Your task to perform on an android device: open app "WhatsApp Messenger" (install if not already installed) and enter user name: "cartons@outlook.com" and password: "approximated" Image 0: 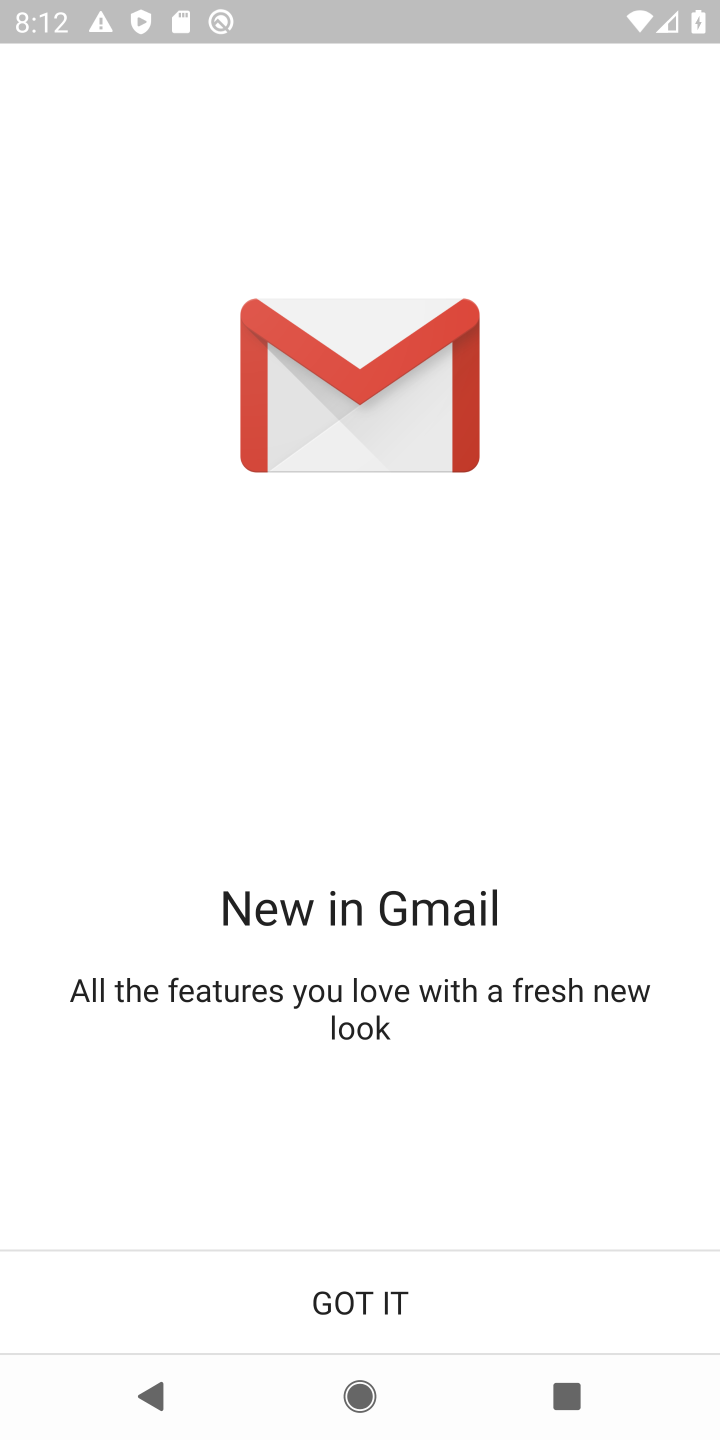
Step 0: click (68, 91)
Your task to perform on an android device: open app "WhatsApp Messenger" (install if not already installed) and enter user name: "cartons@outlook.com" and password: "approximated" Image 1: 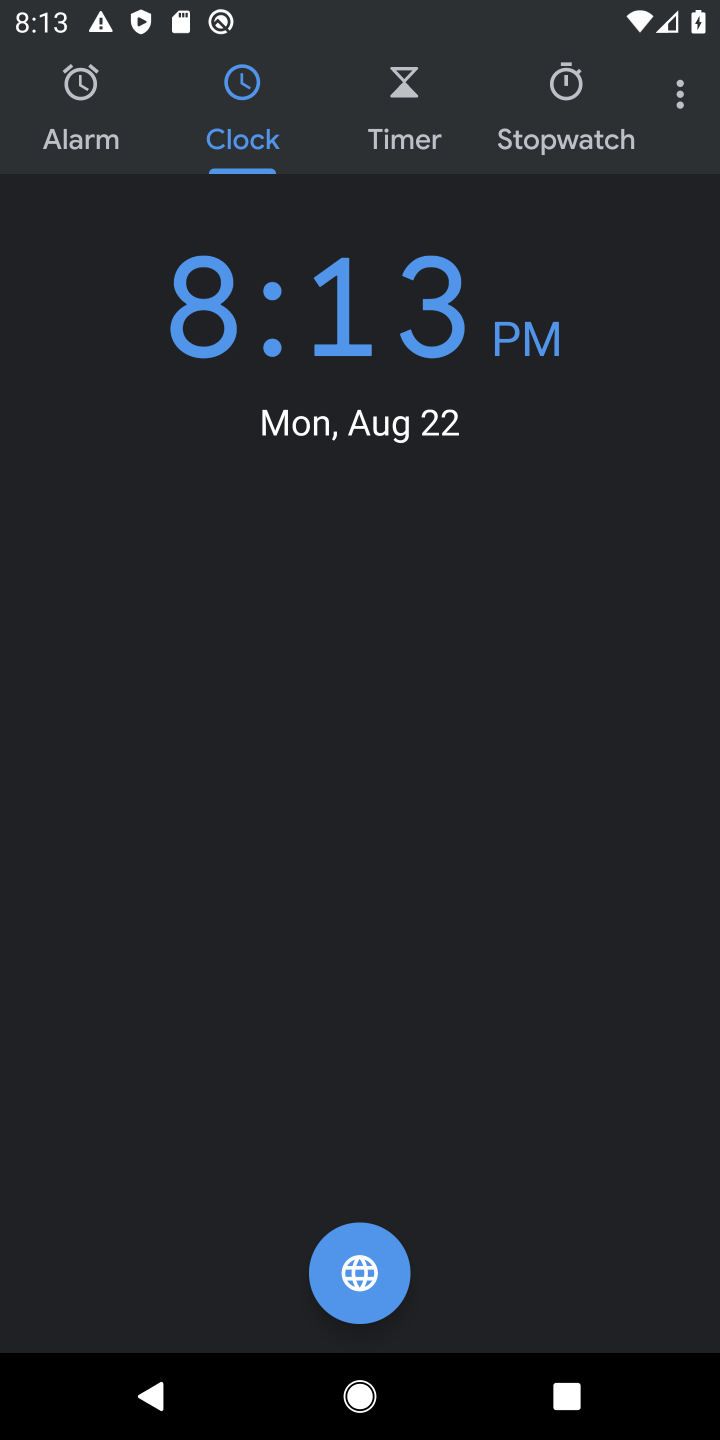
Step 1: press home button
Your task to perform on an android device: open app "WhatsApp Messenger" (install if not already installed) and enter user name: "cartons@outlook.com" and password: "approximated" Image 2: 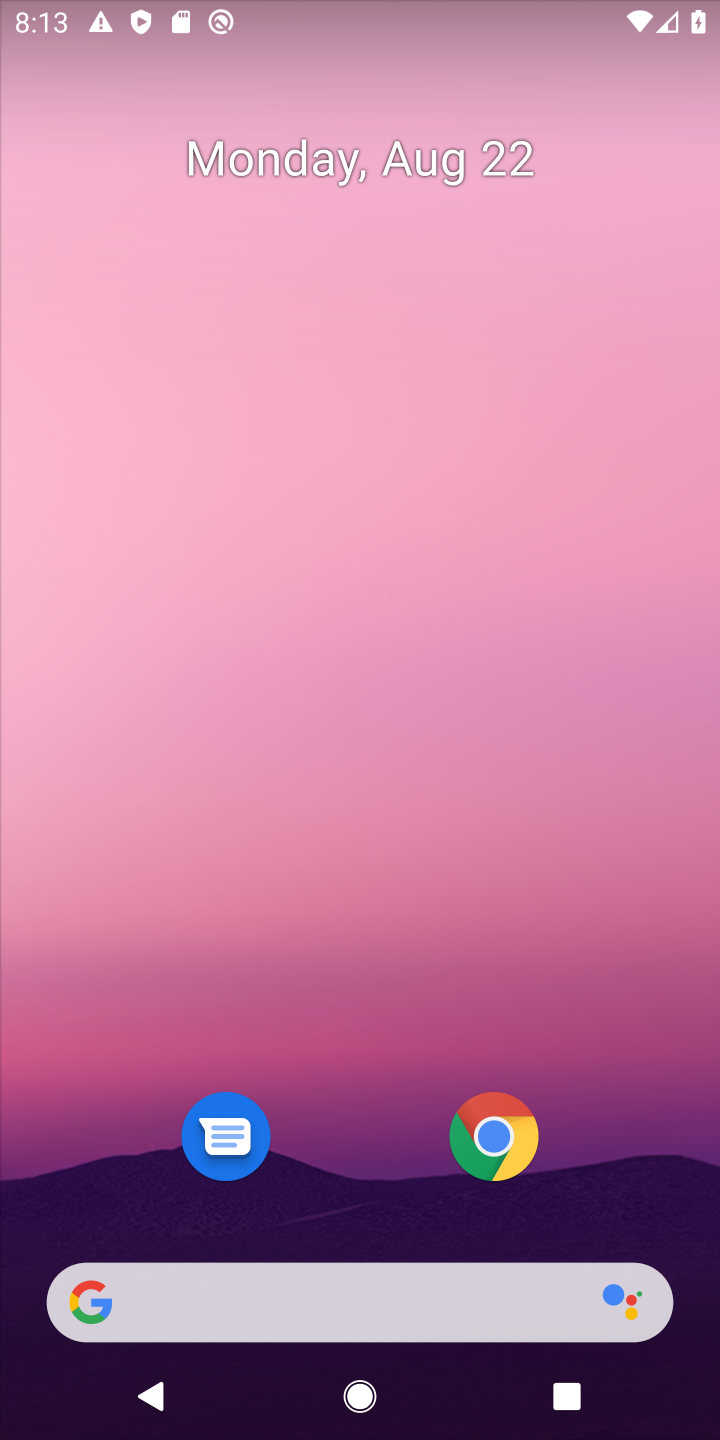
Step 2: drag from (368, 705) to (346, 276)
Your task to perform on an android device: open app "WhatsApp Messenger" (install if not already installed) and enter user name: "cartons@outlook.com" and password: "approximated" Image 3: 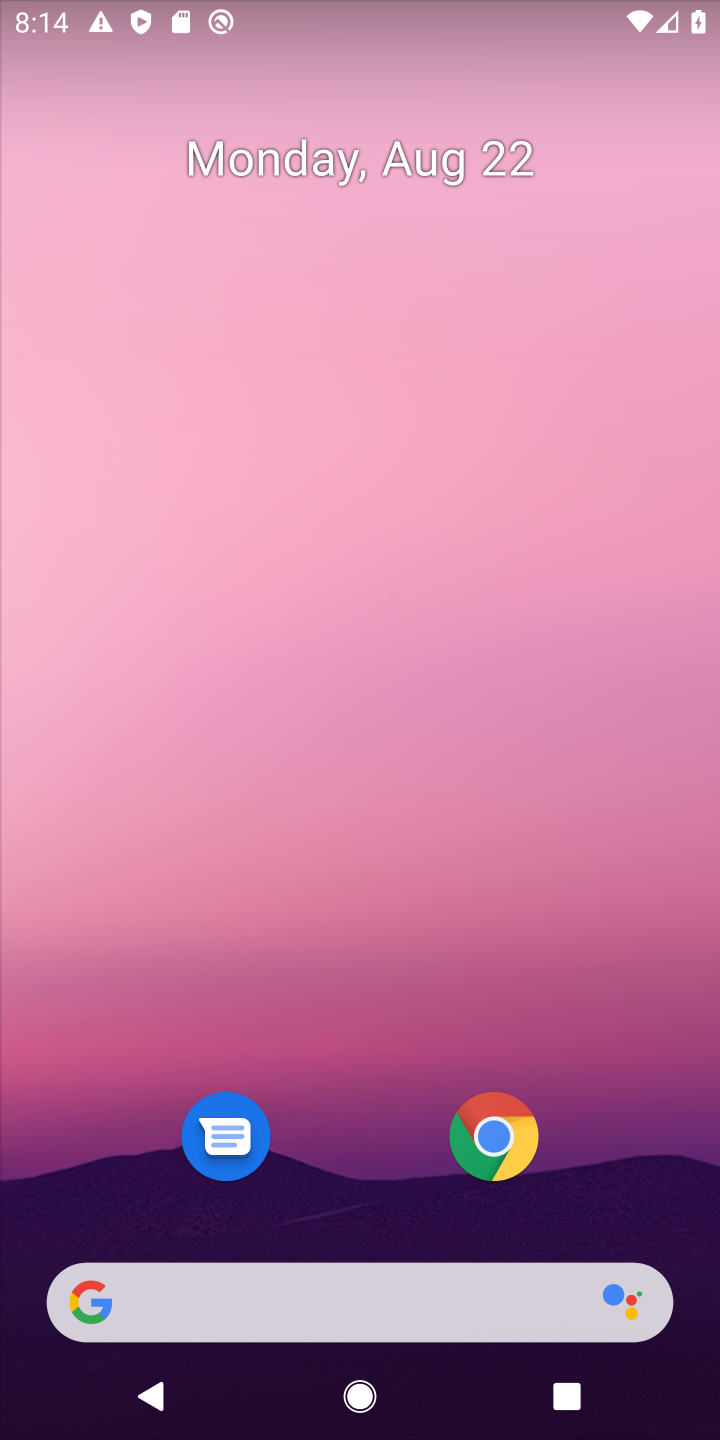
Step 3: drag from (332, 1192) to (386, 349)
Your task to perform on an android device: open app "WhatsApp Messenger" (install if not already installed) and enter user name: "cartons@outlook.com" and password: "approximated" Image 4: 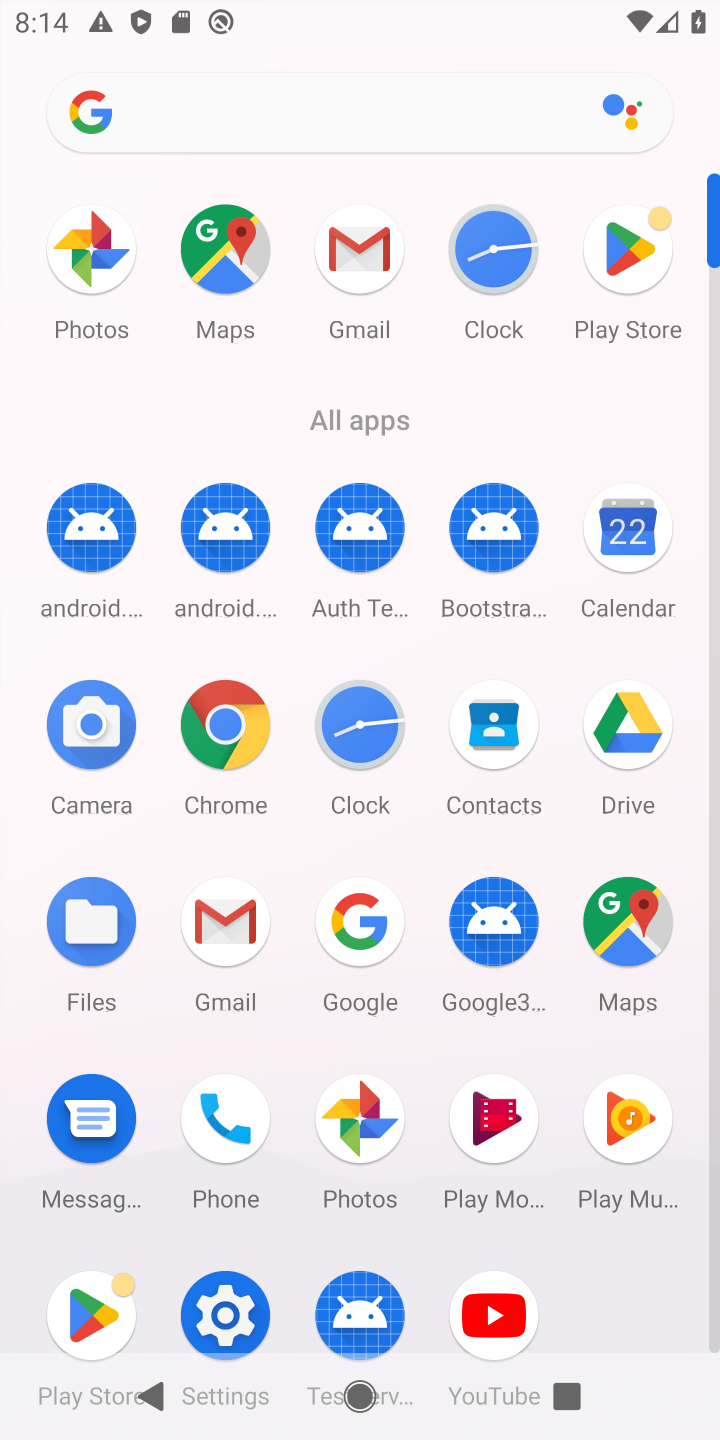
Step 4: click (637, 240)
Your task to perform on an android device: open app "WhatsApp Messenger" (install if not already installed) and enter user name: "cartons@outlook.com" and password: "approximated" Image 5: 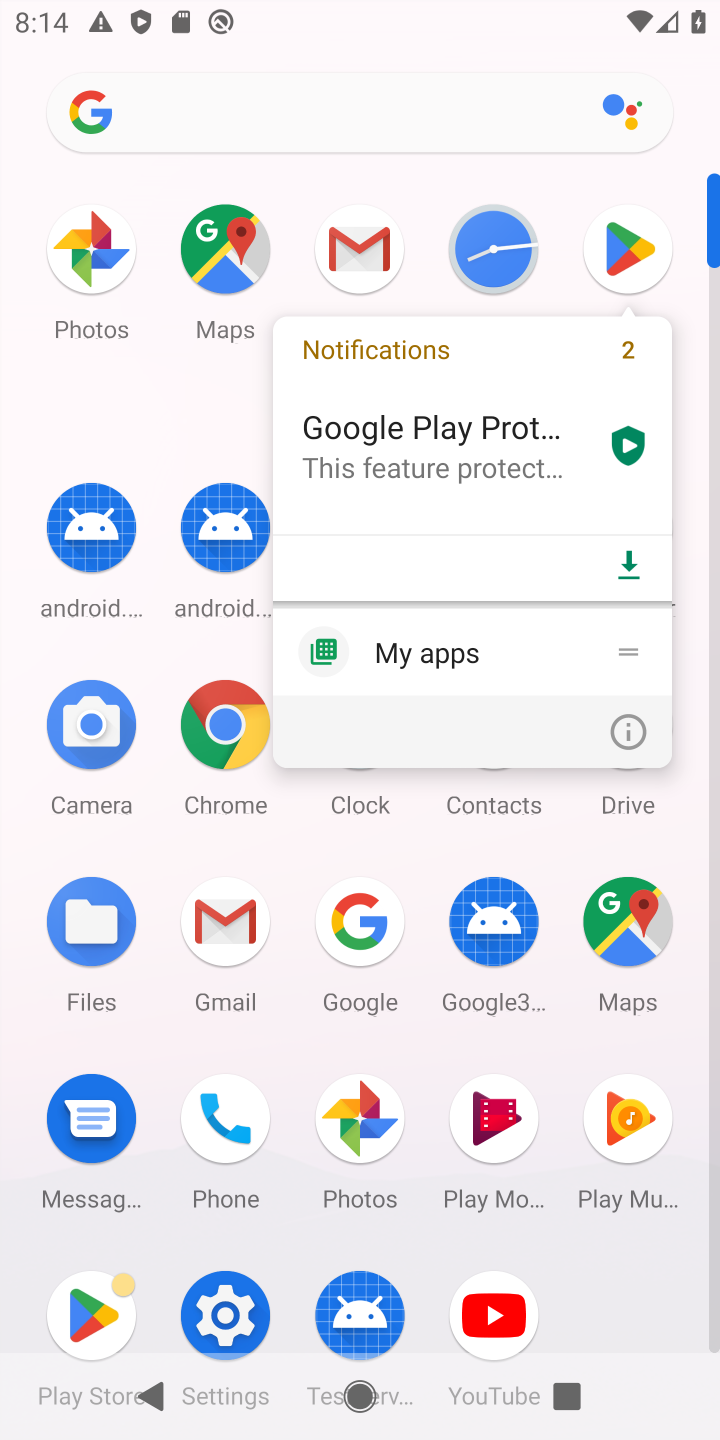
Step 5: click (647, 253)
Your task to perform on an android device: open app "WhatsApp Messenger" (install if not already installed) and enter user name: "cartons@outlook.com" and password: "approximated" Image 6: 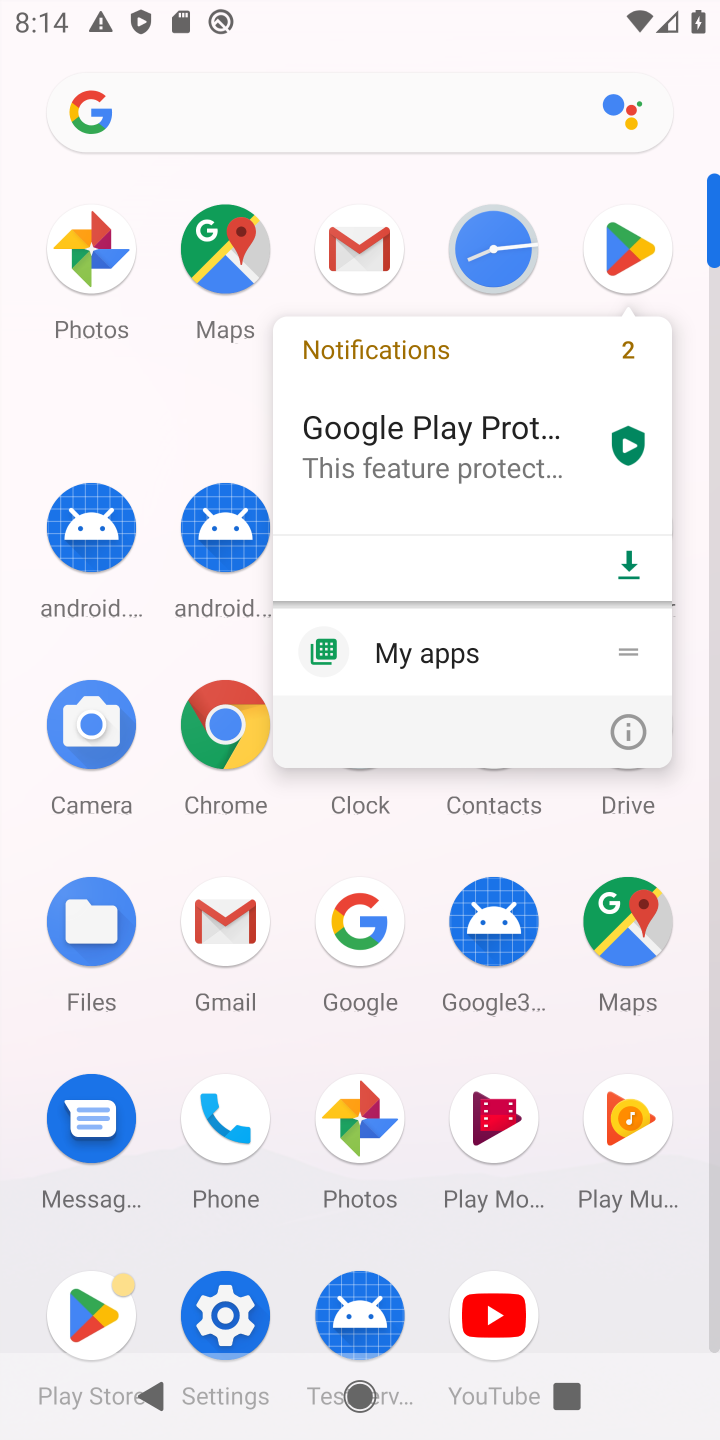
Step 6: click (605, 242)
Your task to perform on an android device: open app "WhatsApp Messenger" (install if not already installed) and enter user name: "cartons@outlook.com" and password: "approximated" Image 7: 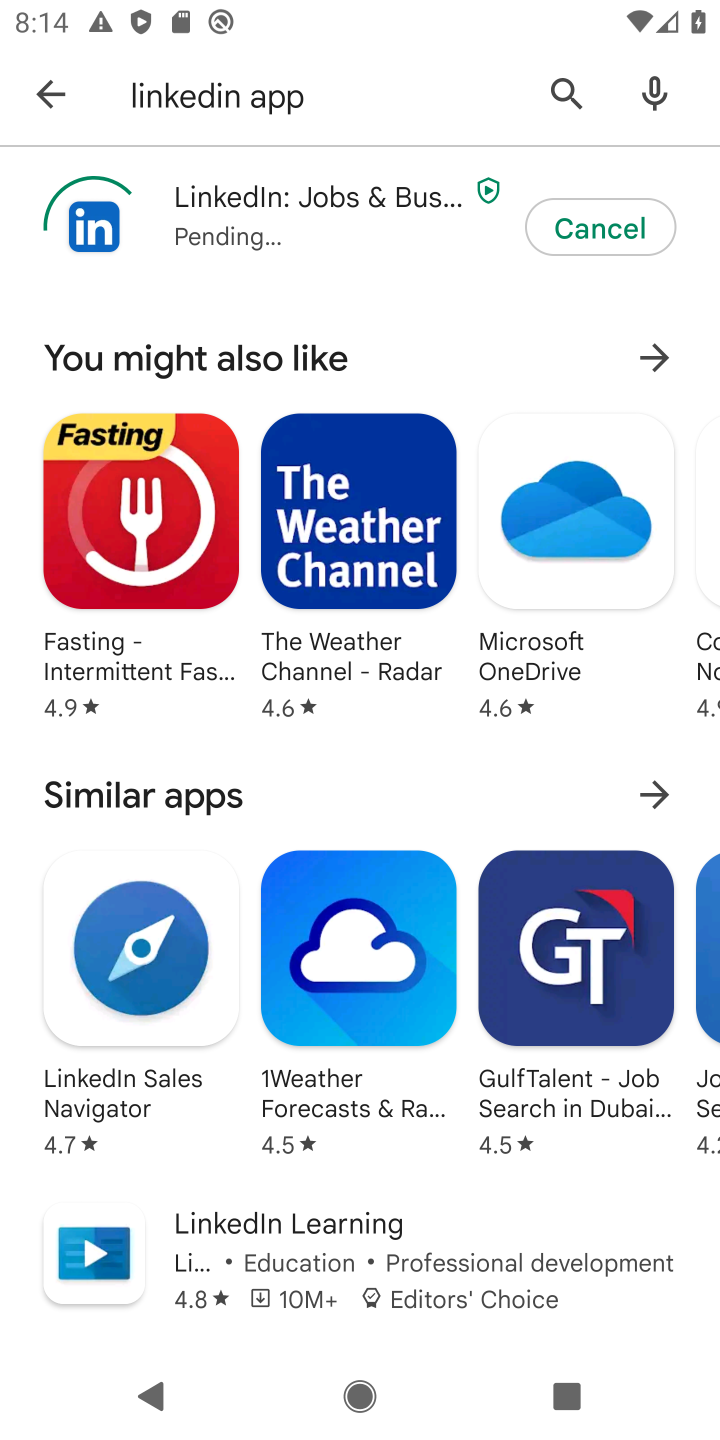
Step 7: click (52, 105)
Your task to perform on an android device: open app "WhatsApp Messenger" (install if not already installed) and enter user name: "cartons@outlook.com" and password: "approximated" Image 8: 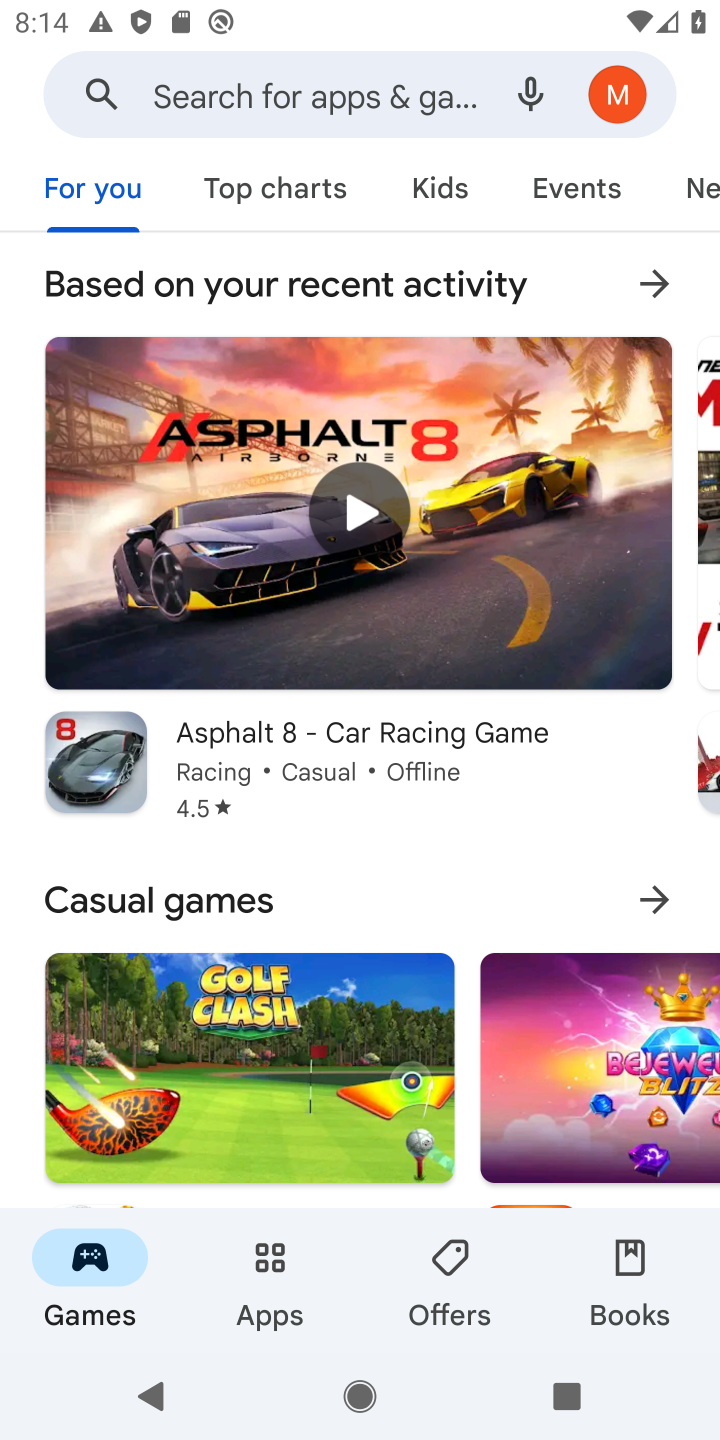
Step 8: click (306, 75)
Your task to perform on an android device: open app "WhatsApp Messenger" (install if not already installed) and enter user name: "cartons@outlook.com" and password: "approximated" Image 9: 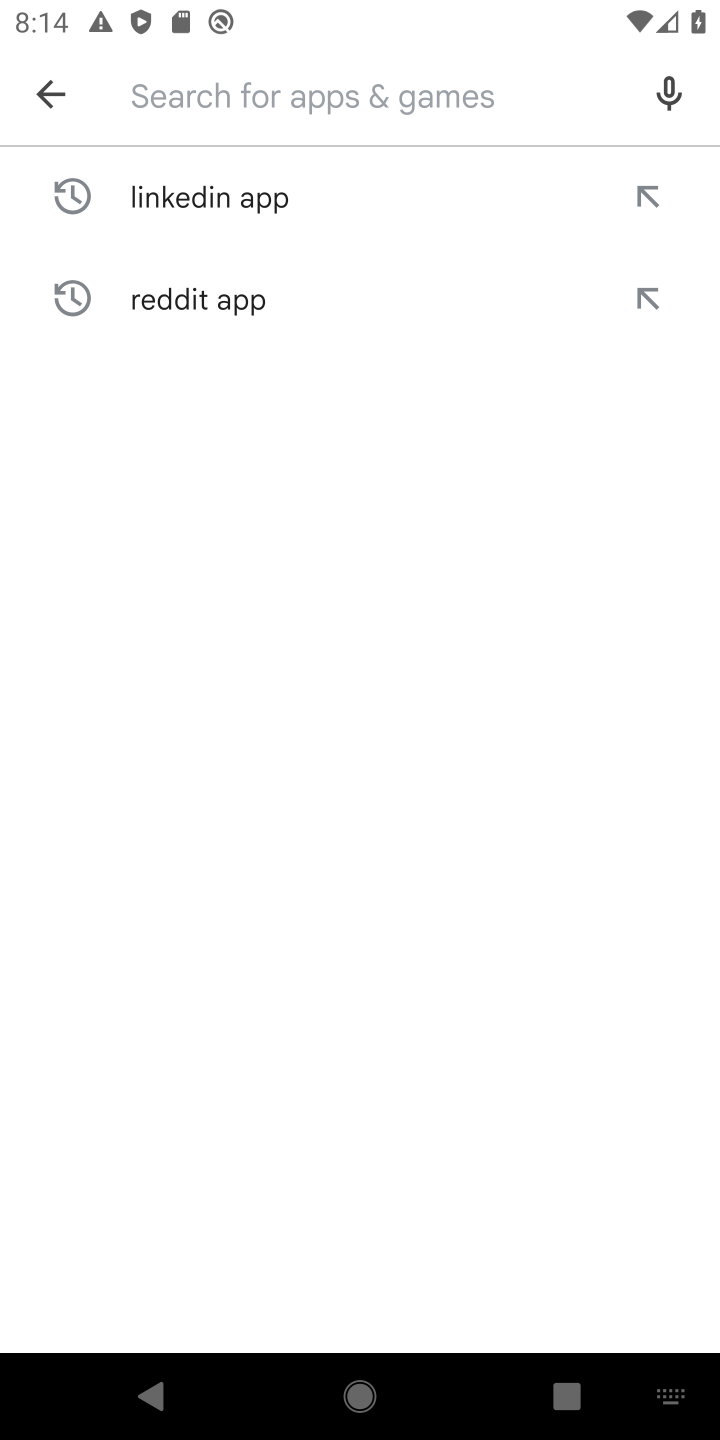
Step 9: type "WhatsApp Messenger "
Your task to perform on an android device: open app "WhatsApp Messenger" (install if not already installed) and enter user name: "cartons@outlook.com" and password: "approximated" Image 10: 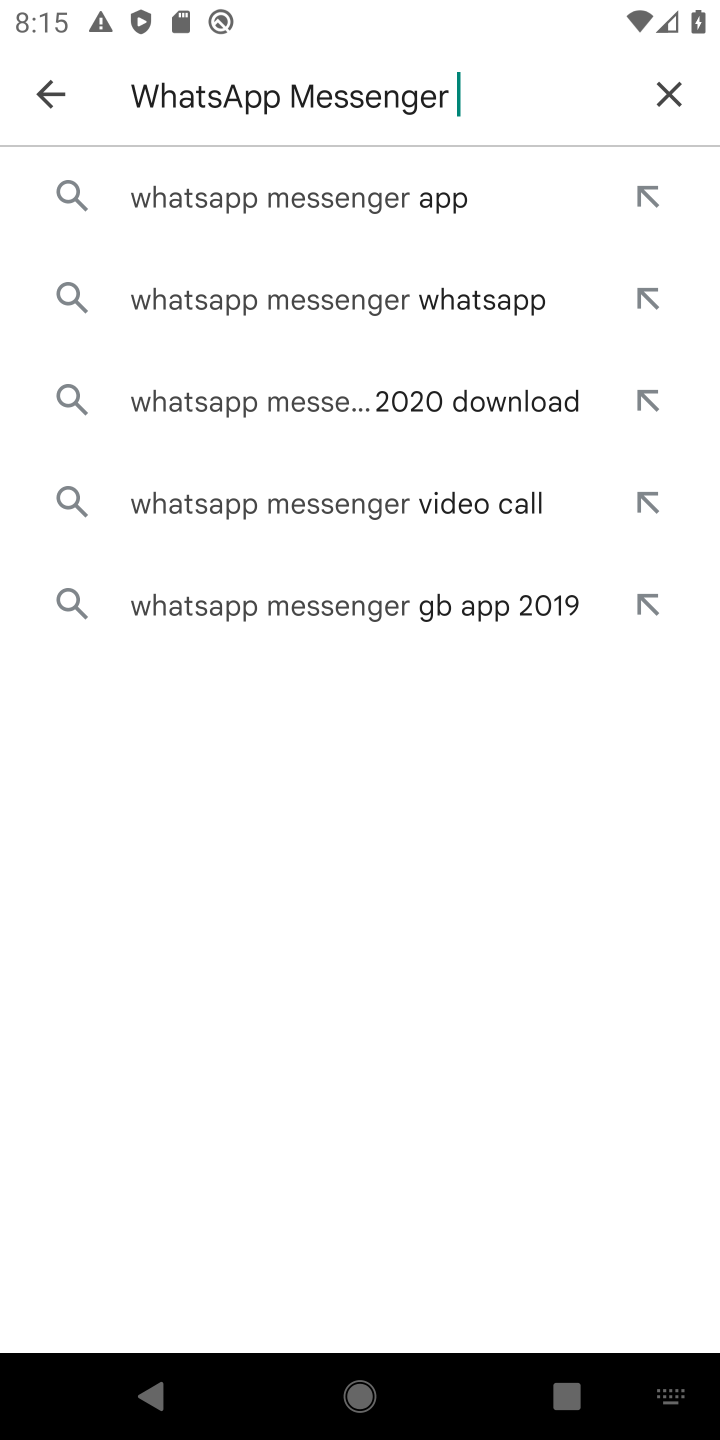
Step 10: click (258, 208)
Your task to perform on an android device: open app "WhatsApp Messenger" (install if not already installed) and enter user name: "cartons@outlook.com" and password: "approximated" Image 11: 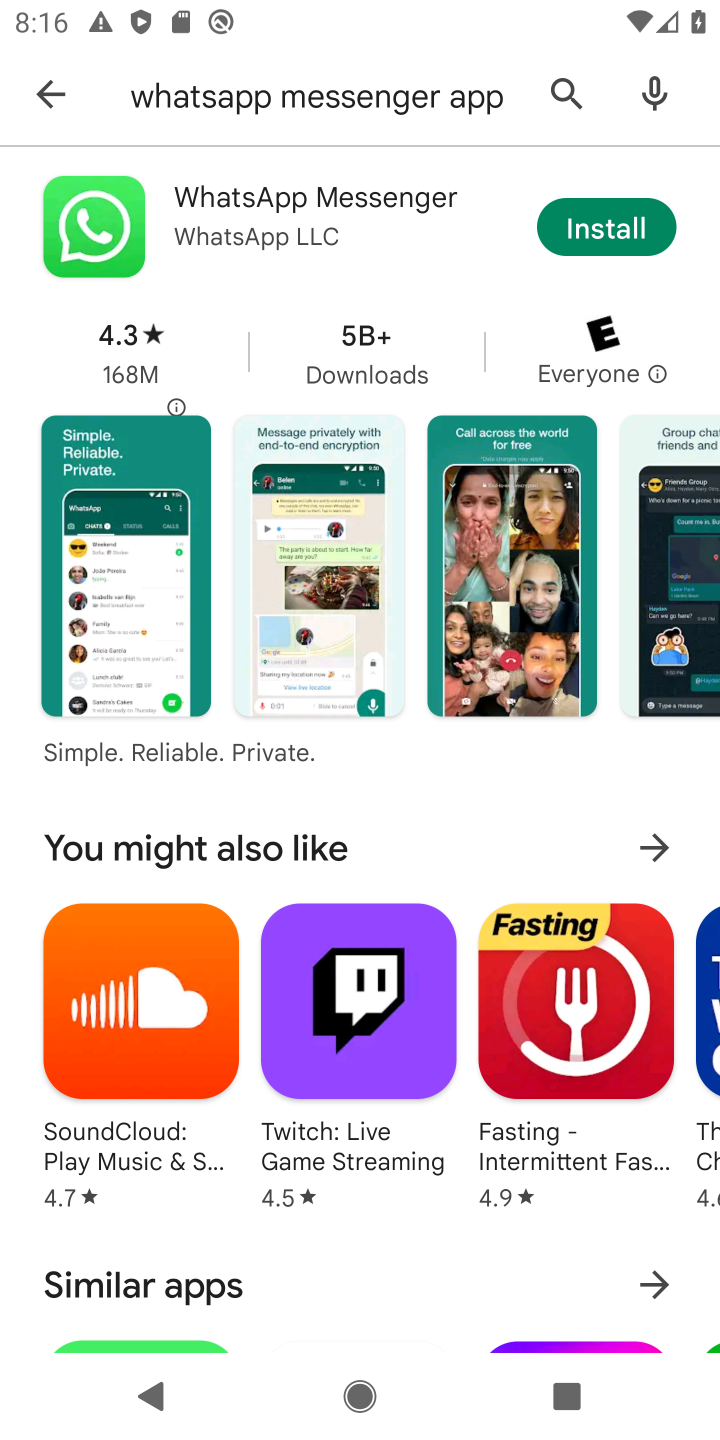
Step 11: click (657, 217)
Your task to perform on an android device: open app "WhatsApp Messenger" (install if not already installed) and enter user name: "cartons@outlook.com" and password: "approximated" Image 12: 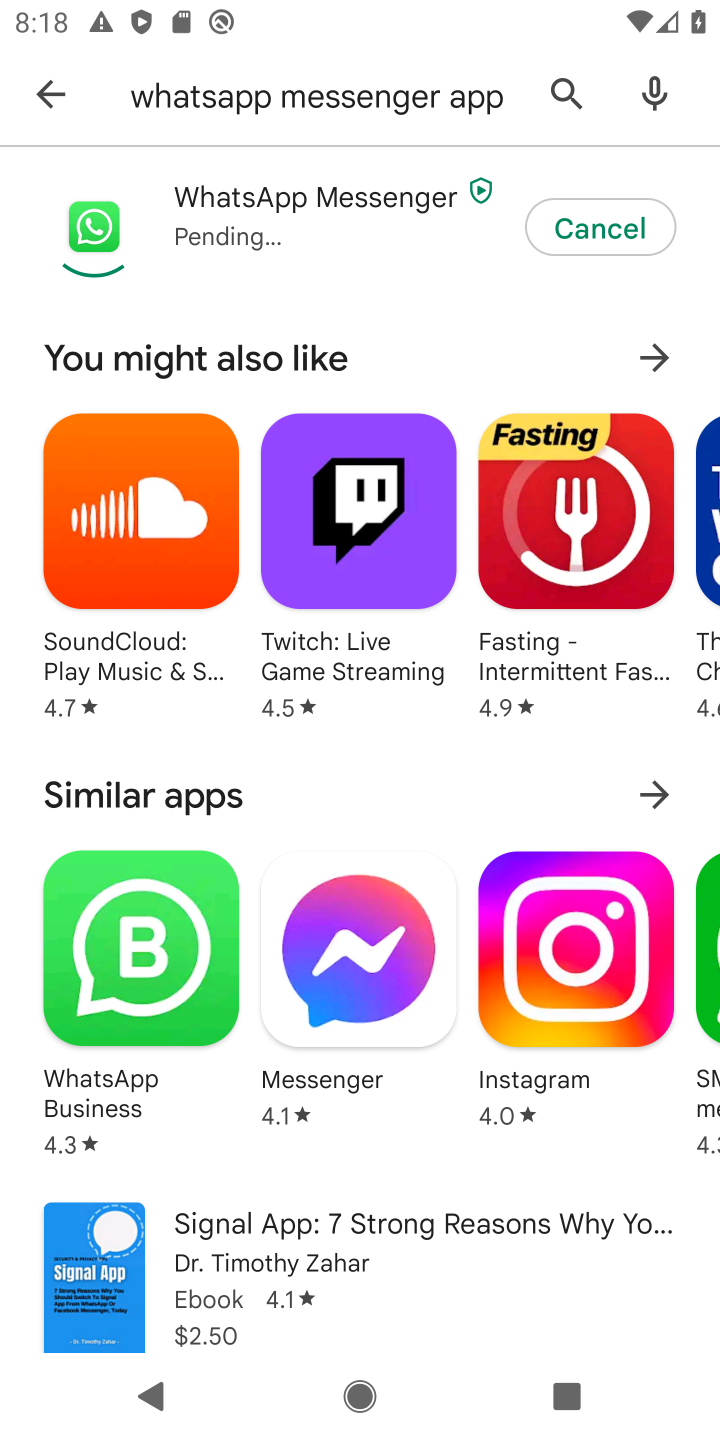
Step 12: click (318, 209)
Your task to perform on an android device: open app "WhatsApp Messenger" (install if not already installed) and enter user name: "cartons@outlook.com" and password: "approximated" Image 13: 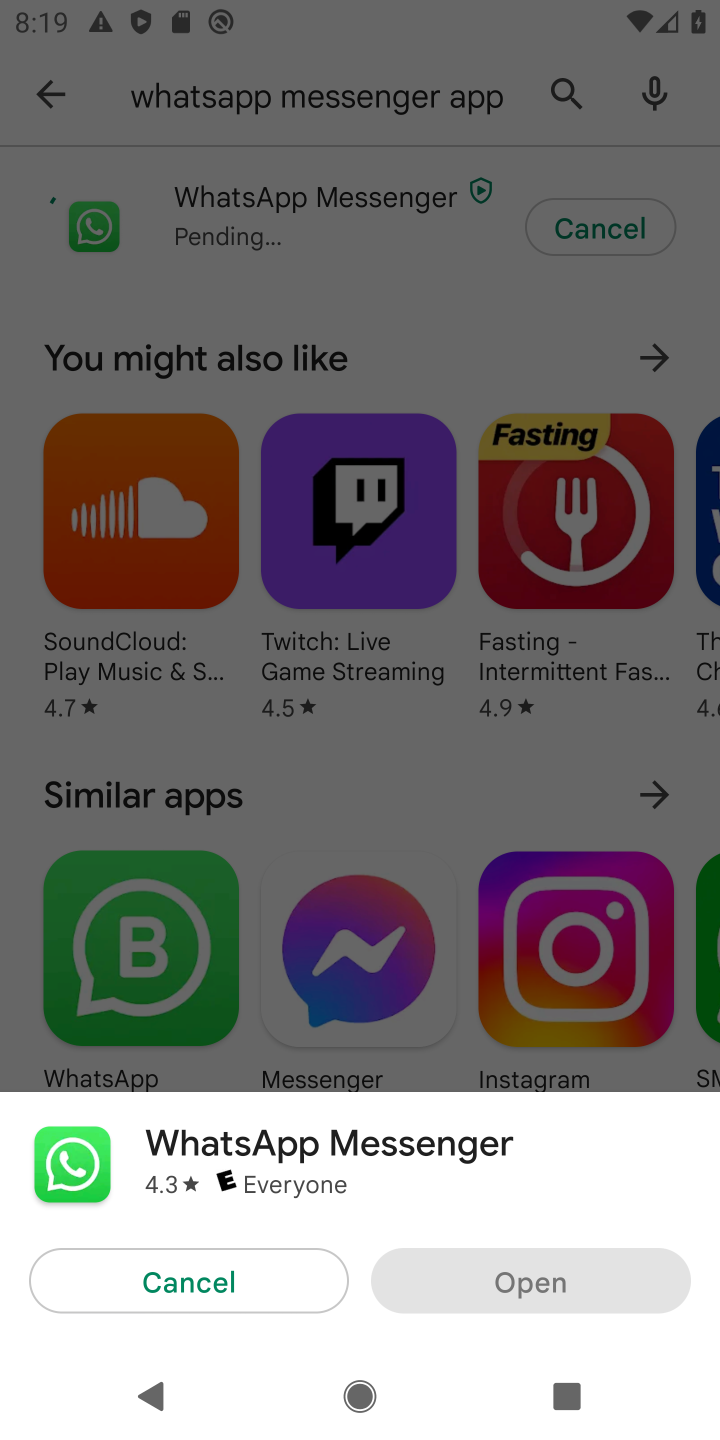
Step 13: click (493, 1290)
Your task to perform on an android device: open app "WhatsApp Messenger" (install if not already installed) and enter user name: "cartons@outlook.com" and password: "approximated" Image 14: 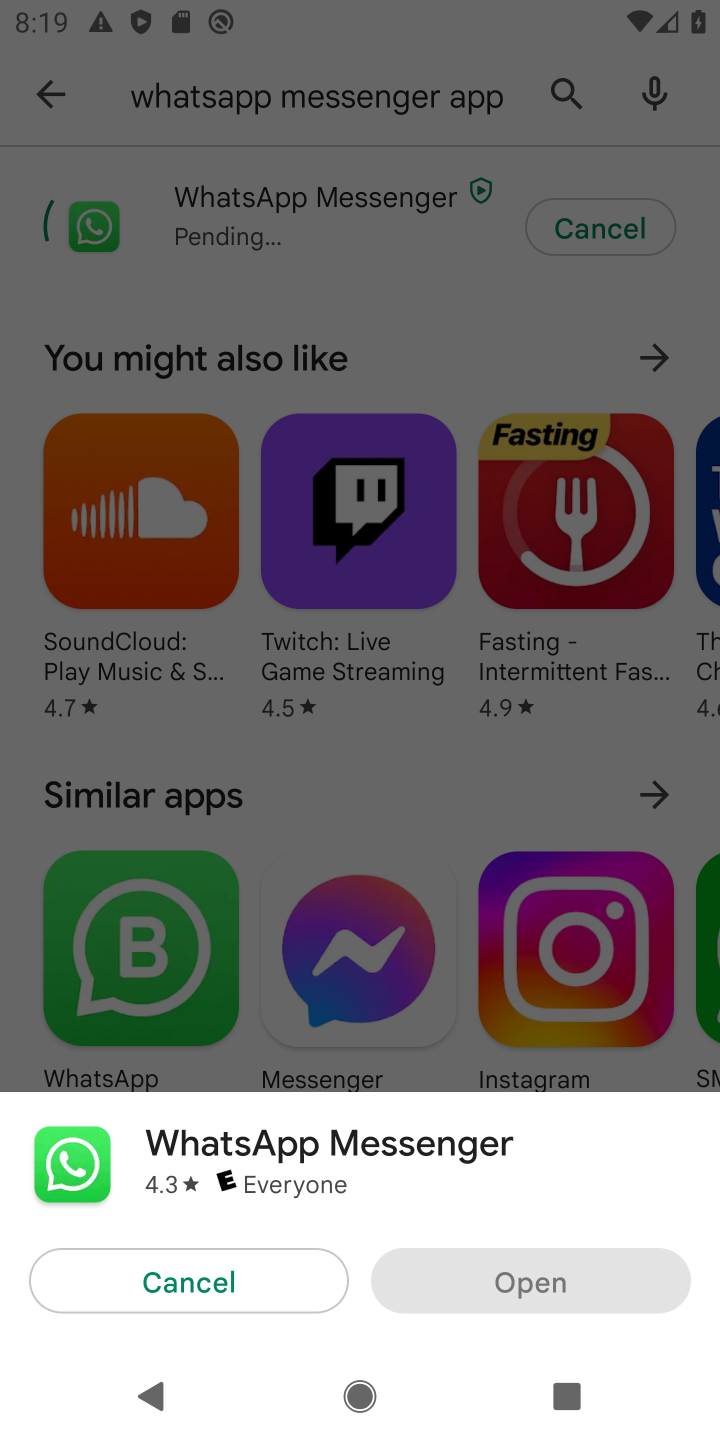
Step 14: drag from (423, 296) to (390, 228)
Your task to perform on an android device: open app "WhatsApp Messenger" (install if not already installed) and enter user name: "cartons@outlook.com" and password: "approximated" Image 15: 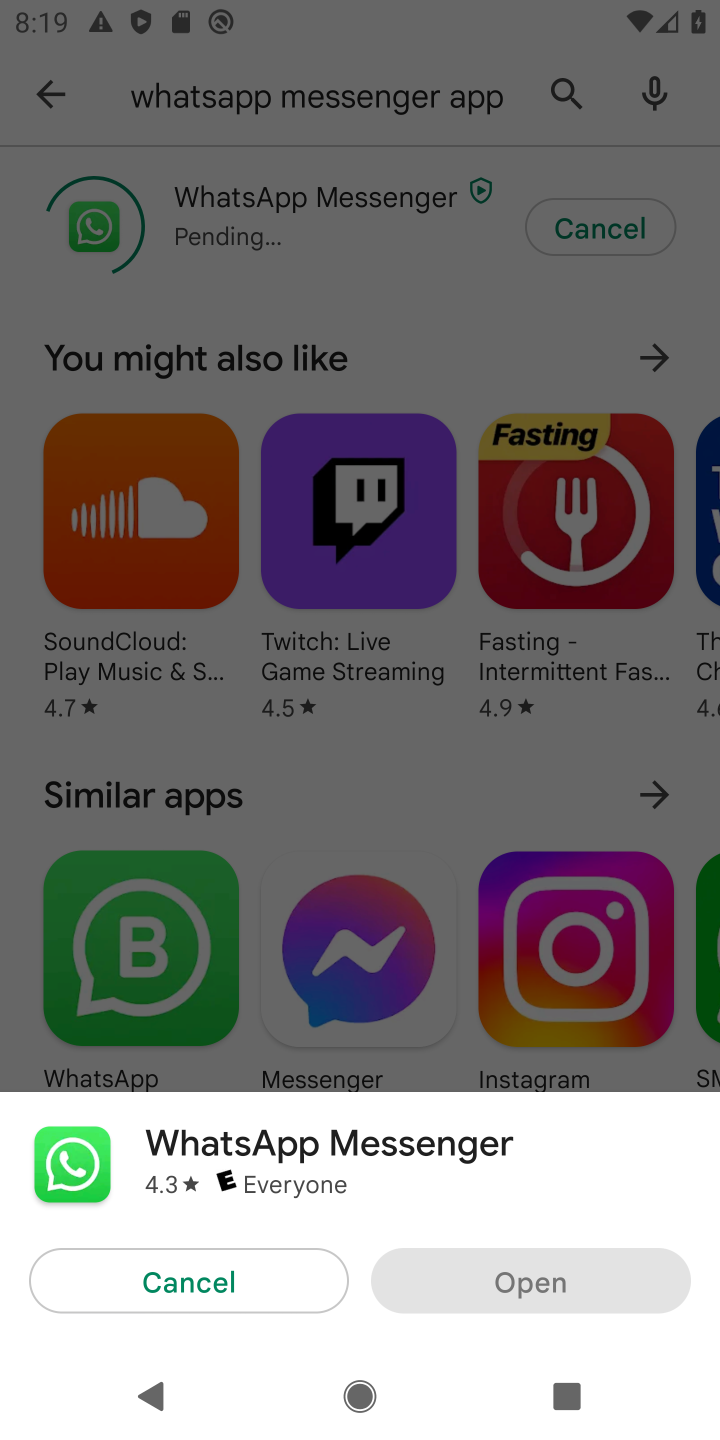
Step 15: click (390, 228)
Your task to perform on an android device: open app "WhatsApp Messenger" (install if not already installed) and enter user name: "cartons@outlook.com" and password: "approximated" Image 16: 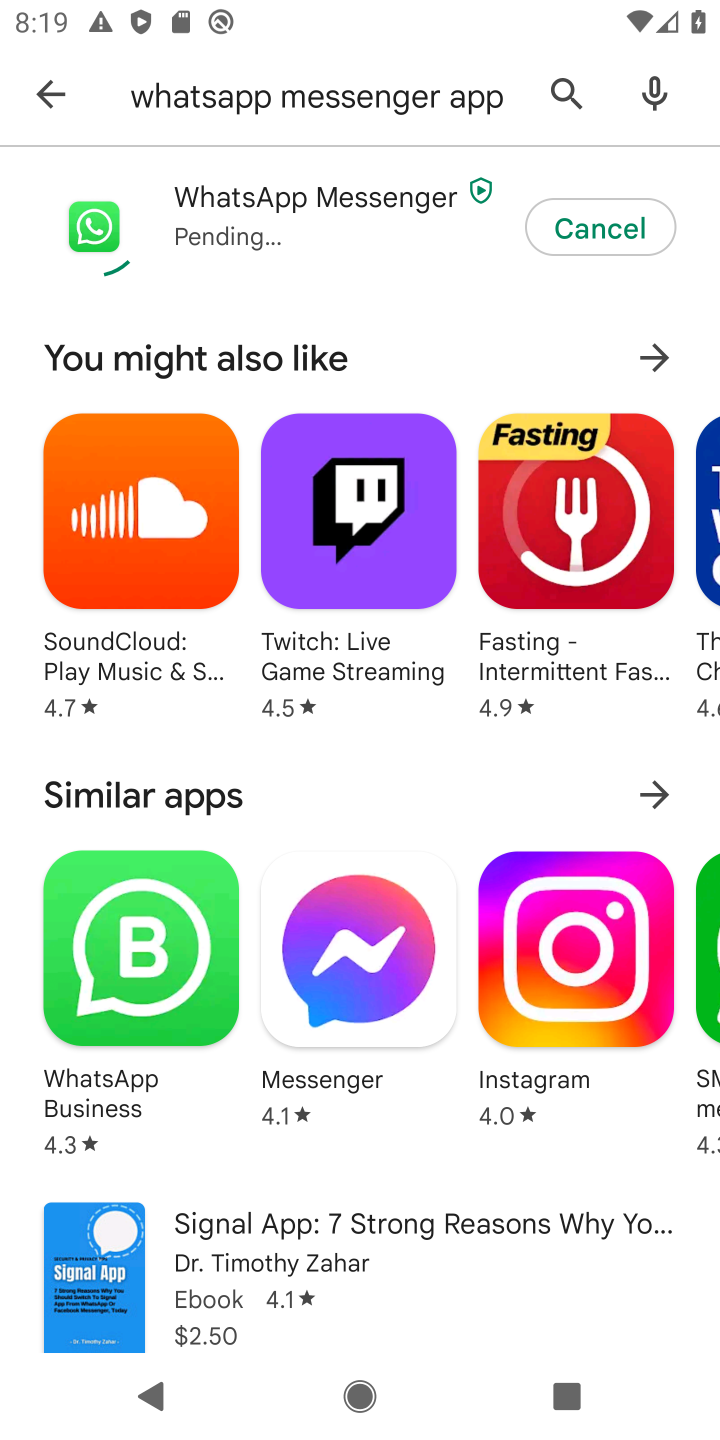
Step 16: task complete